Your task to perform on an android device: turn off data saver in the chrome app Image 0: 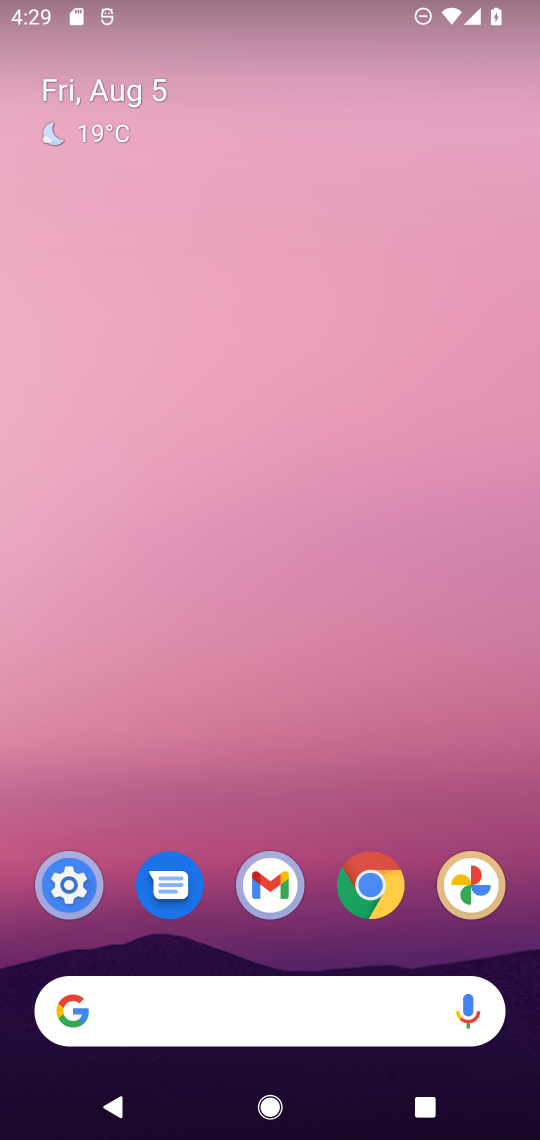
Step 0: click (377, 887)
Your task to perform on an android device: turn off data saver in the chrome app Image 1: 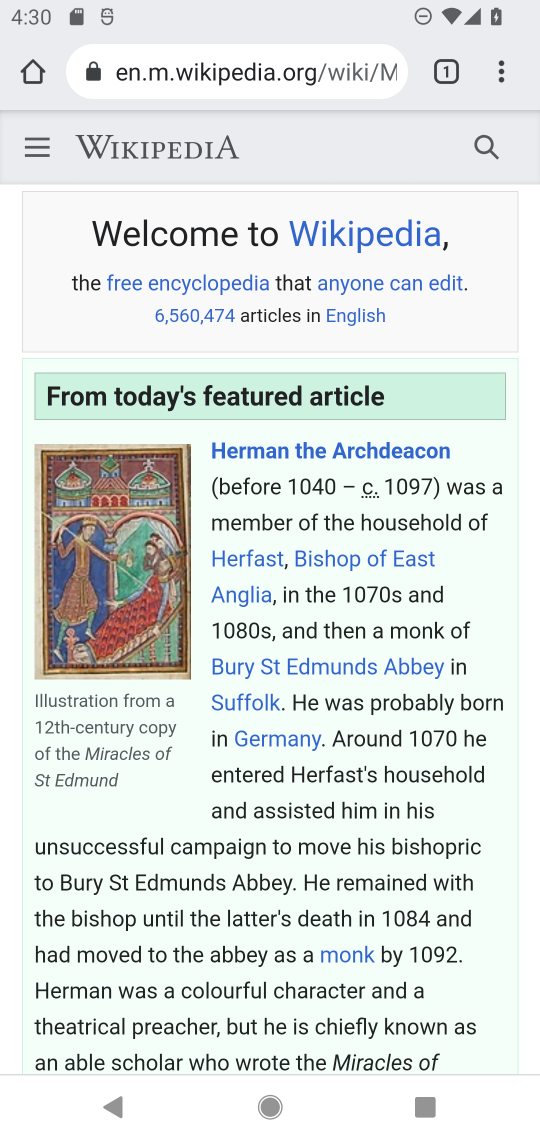
Step 1: click (501, 82)
Your task to perform on an android device: turn off data saver in the chrome app Image 2: 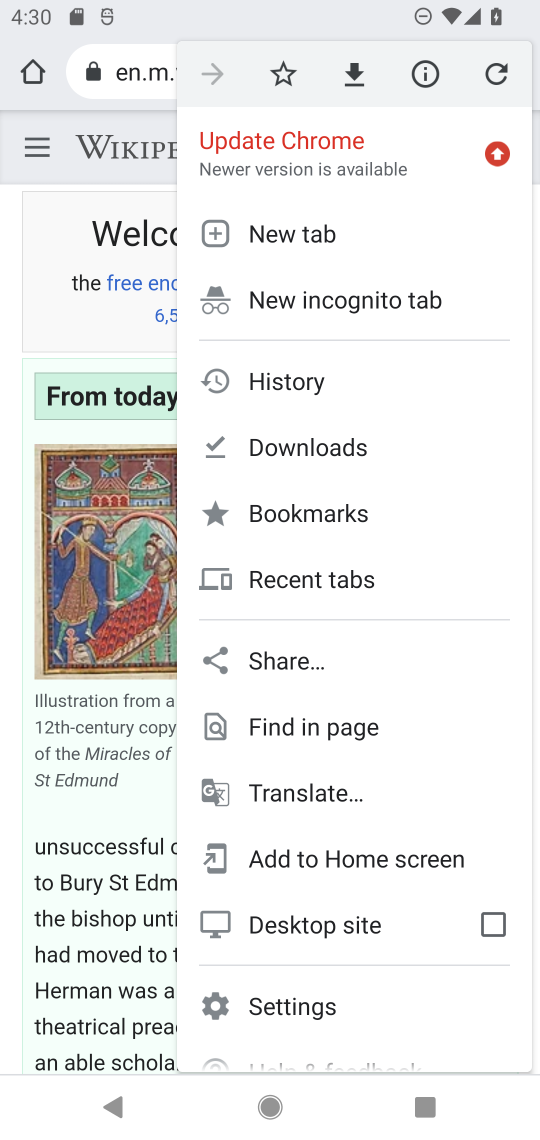
Step 2: click (278, 1000)
Your task to perform on an android device: turn off data saver in the chrome app Image 3: 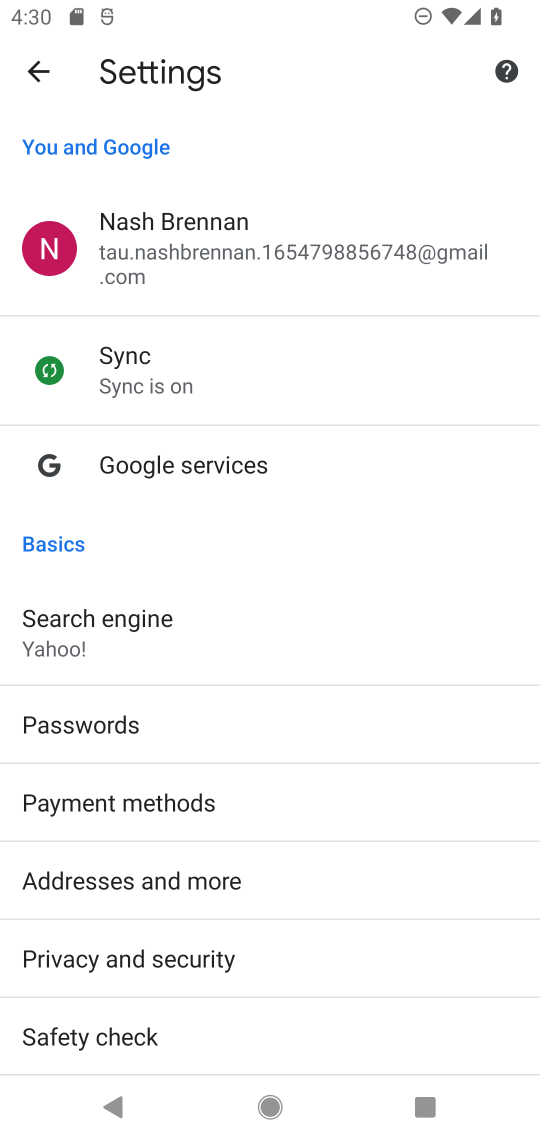
Step 3: drag from (236, 1020) to (285, 540)
Your task to perform on an android device: turn off data saver in the chrome app Image 4: 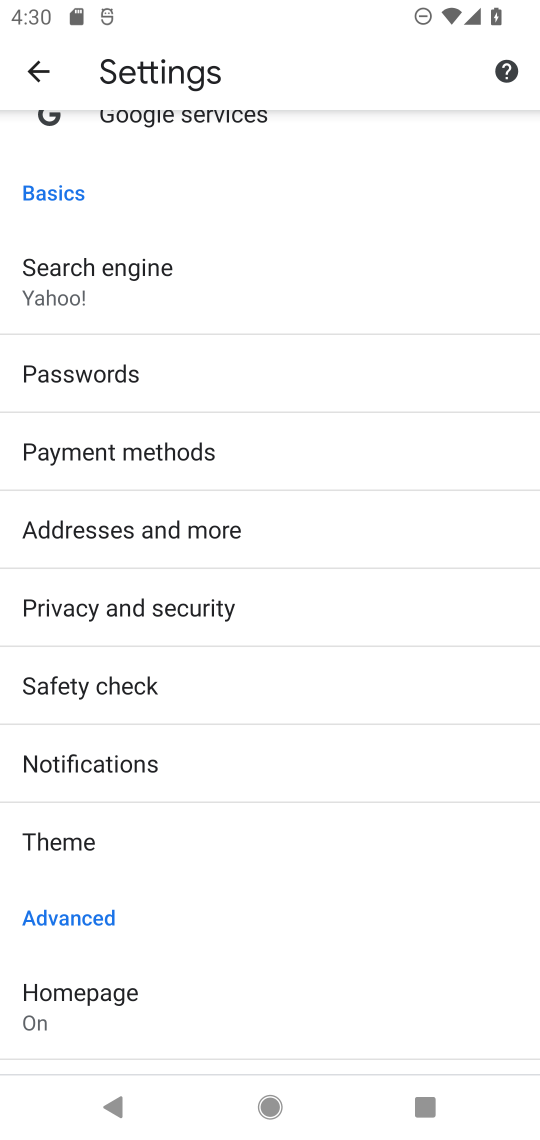
Step 4: drag from (180, 979) to (211, 592)
Your task to perform on an android device: turn off data saver in the chrome app Image 5: 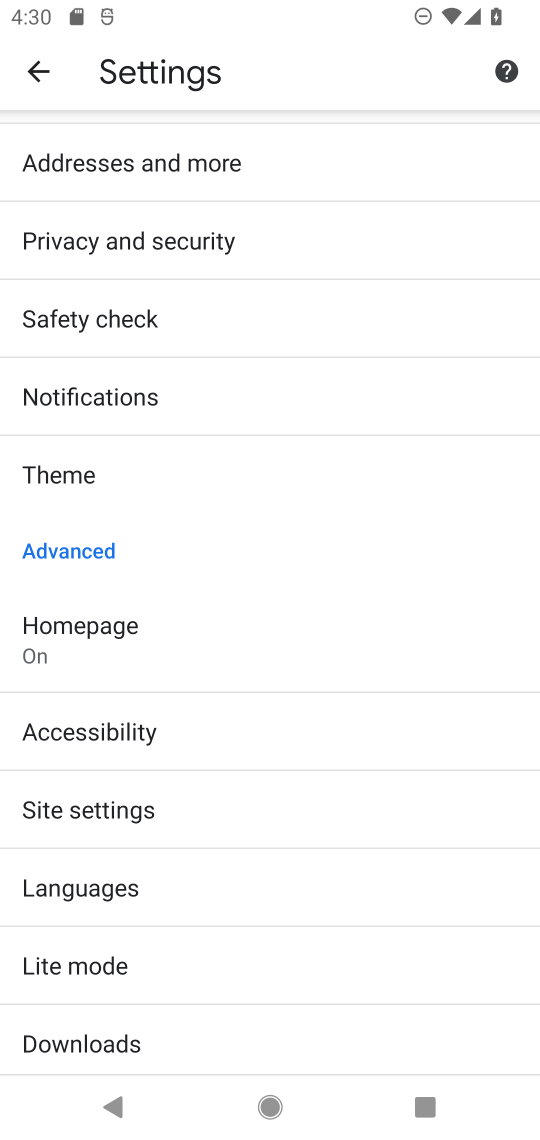
Step 5: click (116, 958)
Your task to perform on an android device: turn off data saver in the chrome app Image 6: 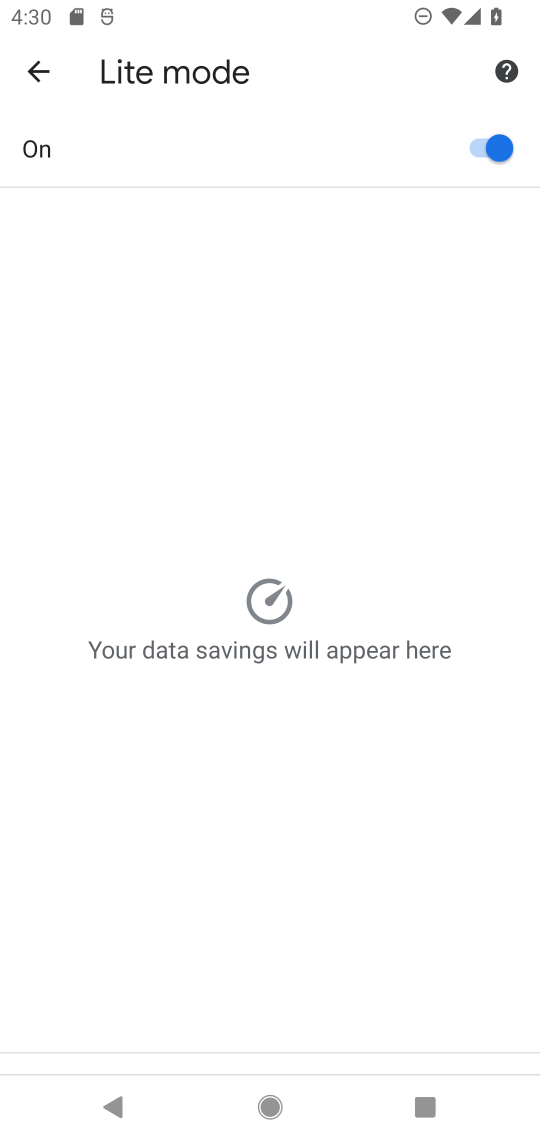
Step 6: click (480, 155)
Your task to perform on an android device: turn off data saver in the chrome app Image 7: 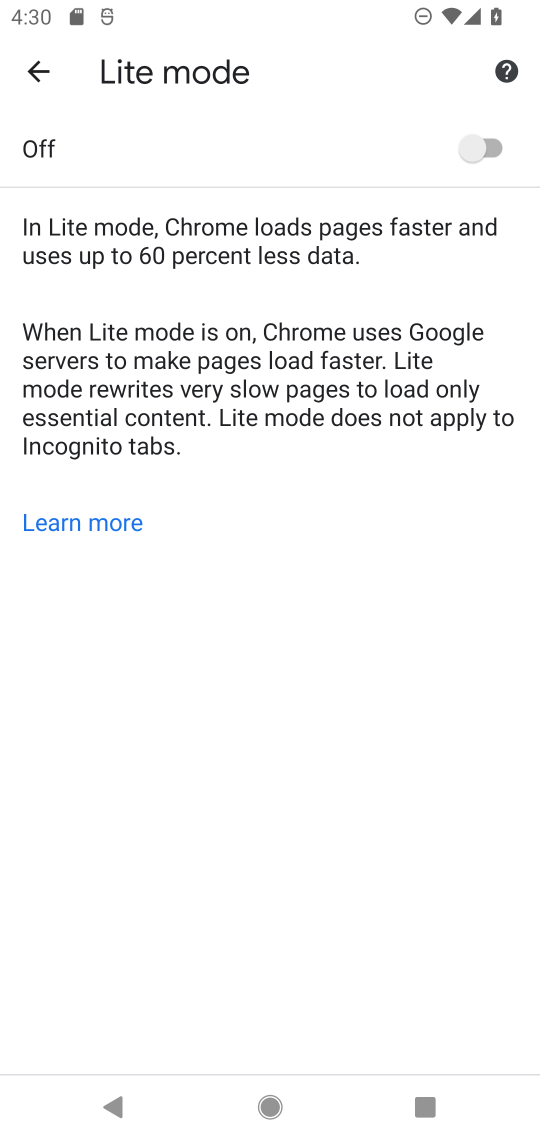
Step 7: task complete